Your task to perform on an android device: Go to eBay Image 0: 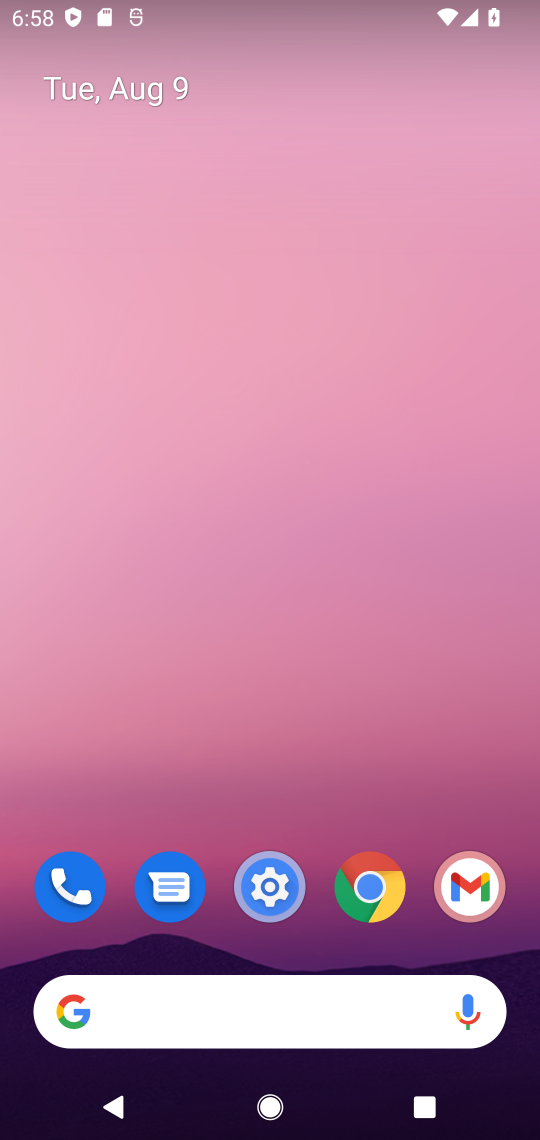
Step 0: click (263, 1014)
Your task to perform on an android device: Go to eBay Image 1: 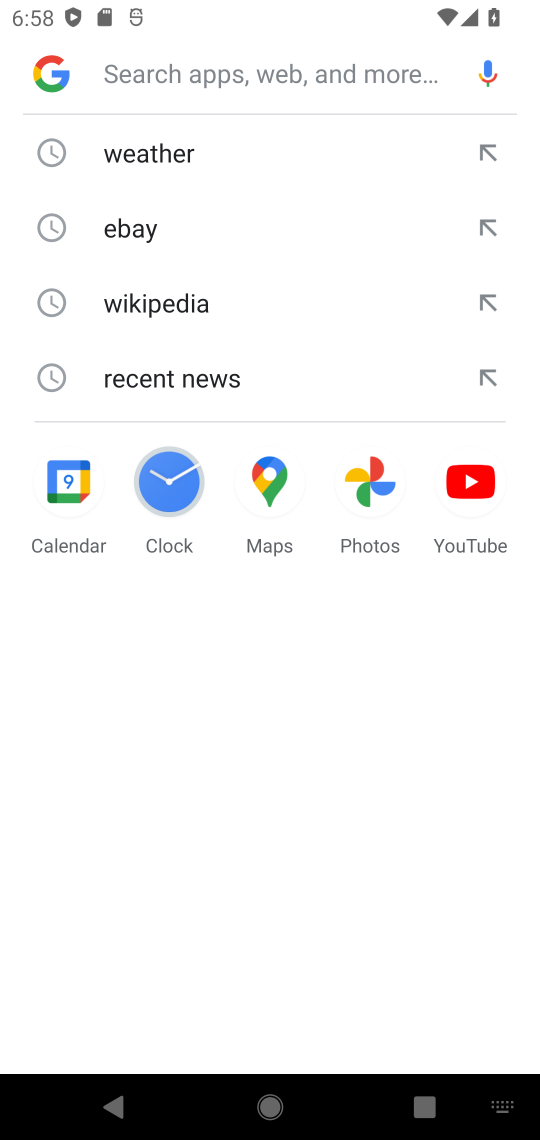
Step 1: click (156, 232)
Your task to perform on an android device: Go to eBay Image 2: 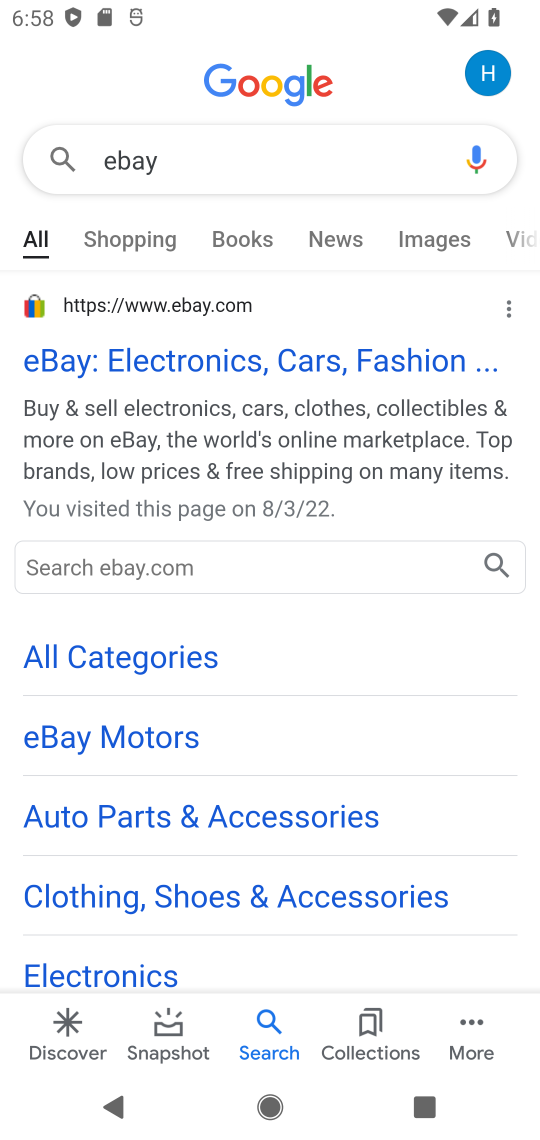
Step 2: click (206, 357)
Your task to perform on an android device: Go to eBay Image 3: 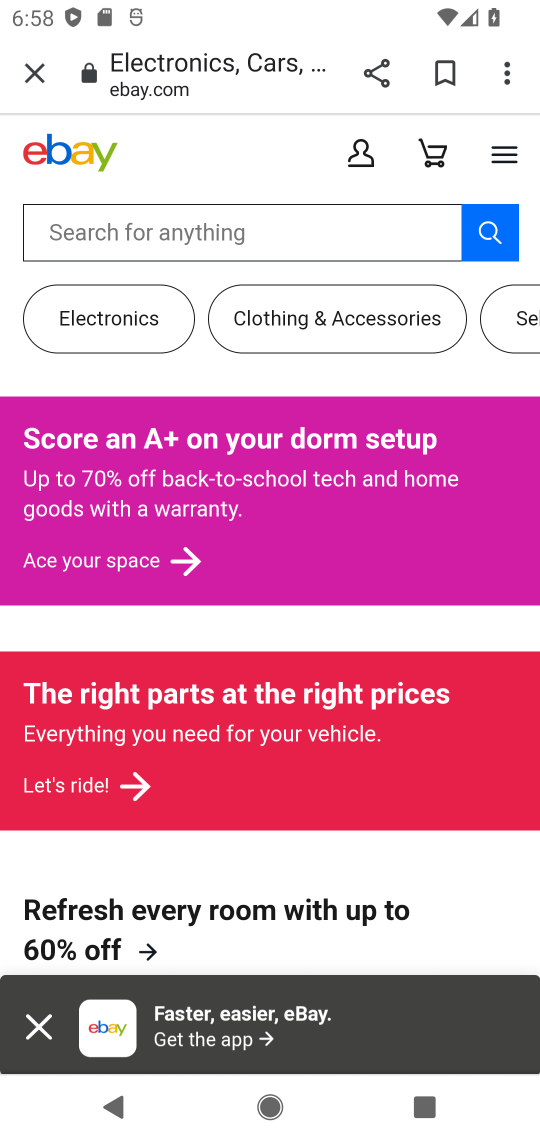
Step 3: task complete